Your task to perform on an android device: turn on the 24-hour format for clock Image 0: 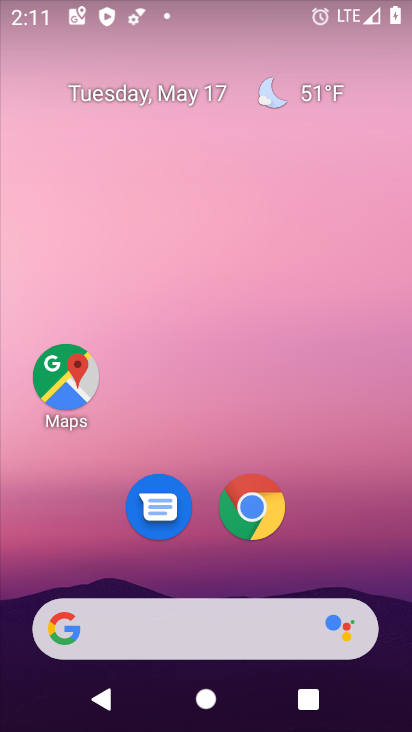
Step 0: drag from (294, 547) to (321, 76)
Your task to perform on an android device: turn on the 24-hour format for clock Image 1: 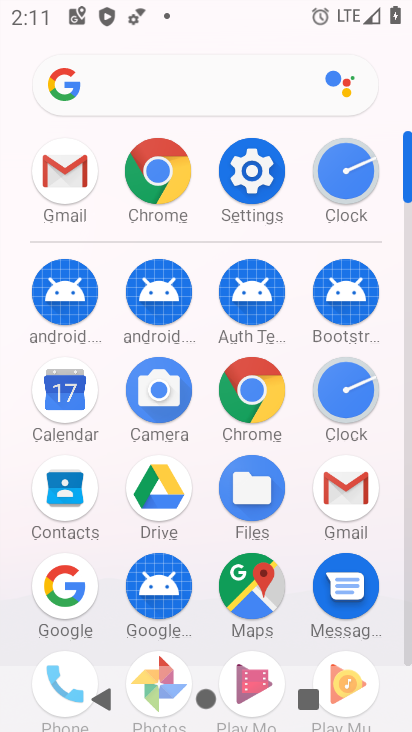
Step 1: click (344, 400)
Your task to perform on an android device: turn on the 24-hour format for clock Image 2: 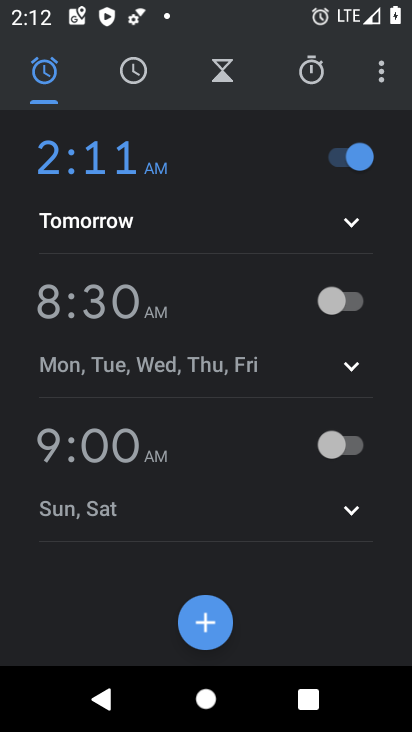
Step 2: click (376, 72)
Your task to perform on an android device: turn on the 24-hour format for clock Image 3: 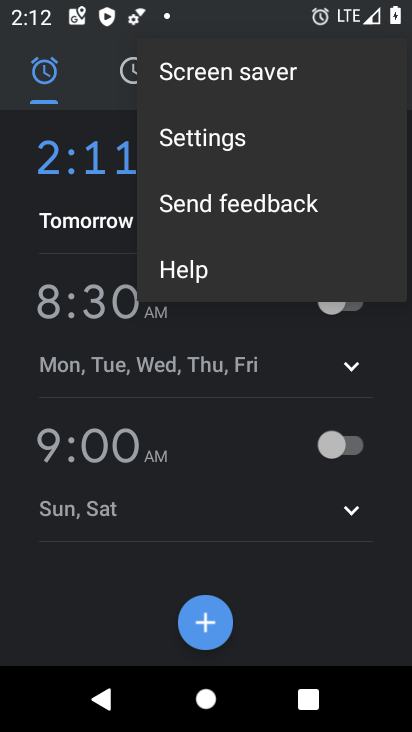
Step 3: click (257, 150)
Your task to perform on an android device: turn on the 24-hour format for clock Image 4: 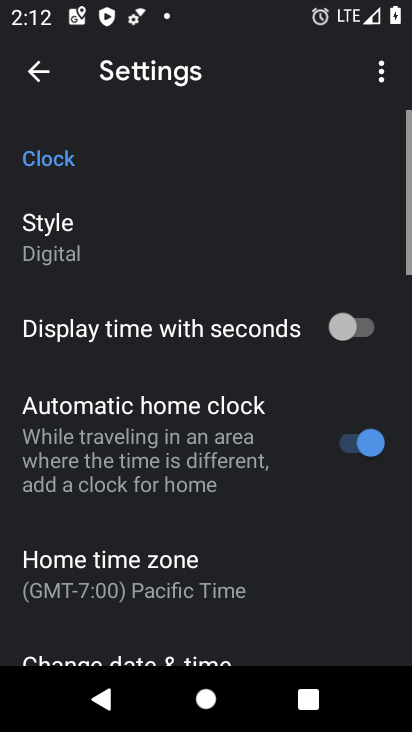
Step 4: drag from (156, 427) to (185, 223)
Your task to perform on an android device: turn on the 24-hour format for clock Image 5: 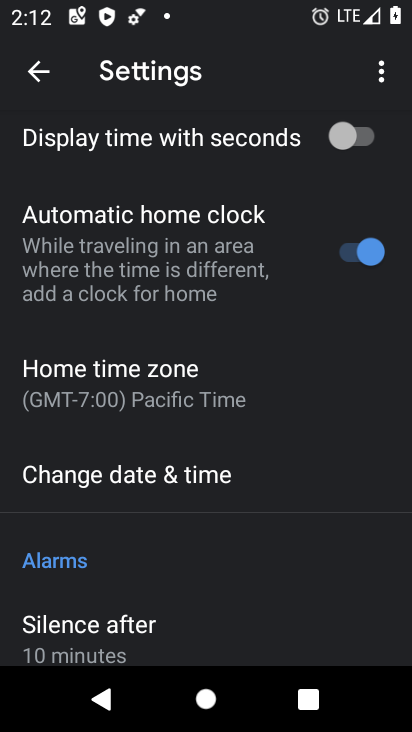
Step 5: click (111, 475)
Your task to perform on an android device: turn on the 24-hour format for clock Image 6: 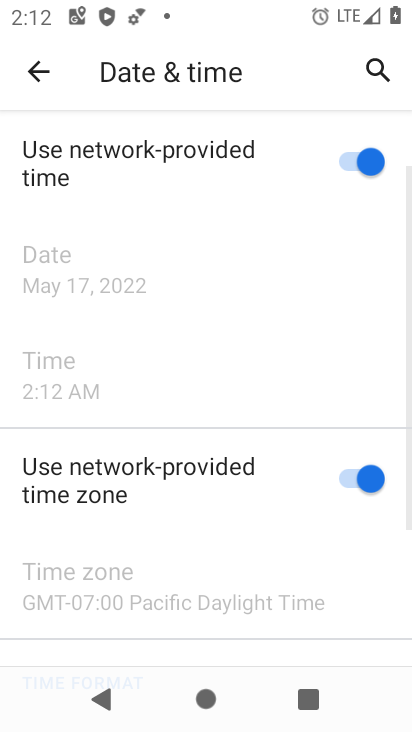
Step 6: drag from (125, 460) to (199, 191)
Your task to perform on an android device: turn on the 24-hour format for clock Image 7: 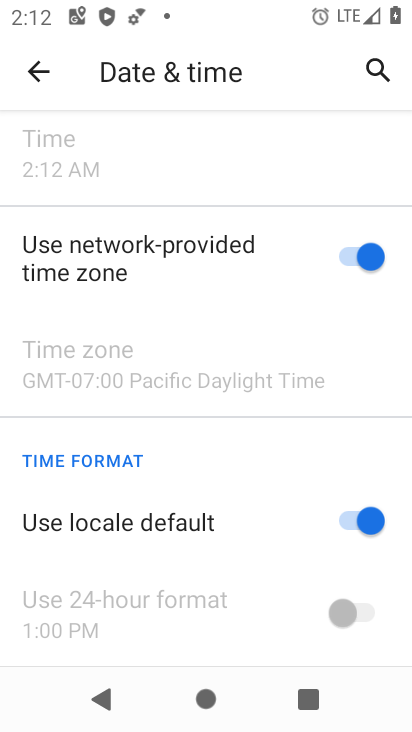
Step 7: click (337, 523)
Your task to perform on an android device: turn on the 24-hour format for clock Image 8: 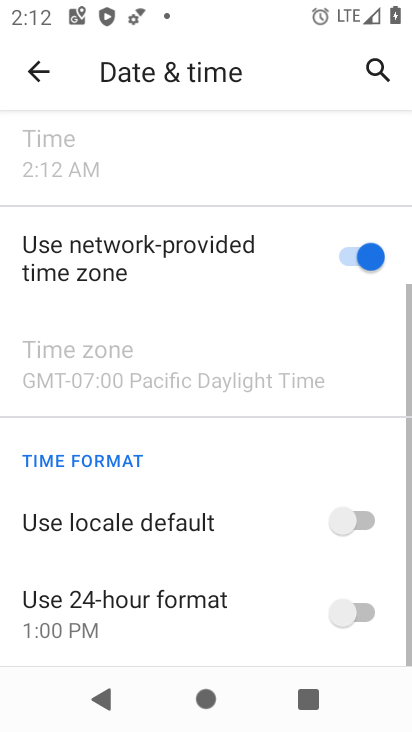
Step 8: click (344, 593)
Your task to perform on an android device: turn on the 24-hour format for clock Image 9: 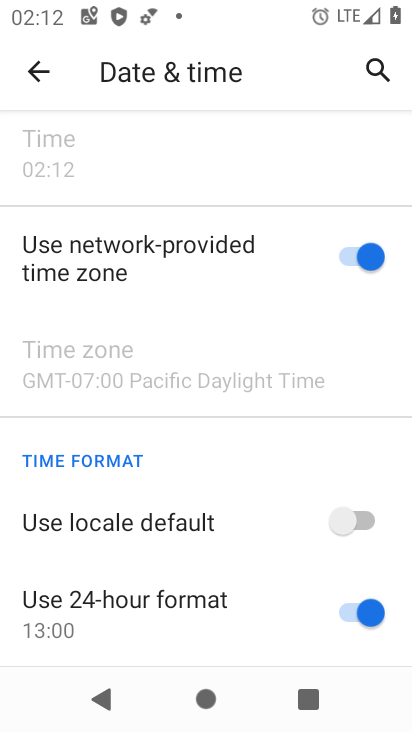
Step 9: task complete